Your task to perform on an android device: see sites visited before in the chrome app Image 0: 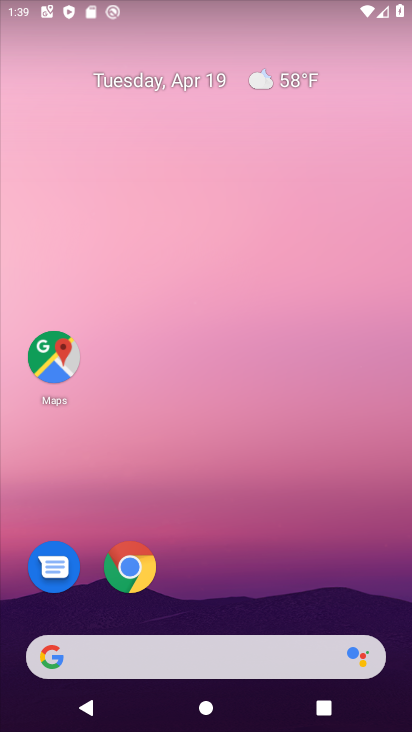
Step 0: click (118, 569)
Your task to perform on an android device: see sites visited before in the chrome app Image 1: 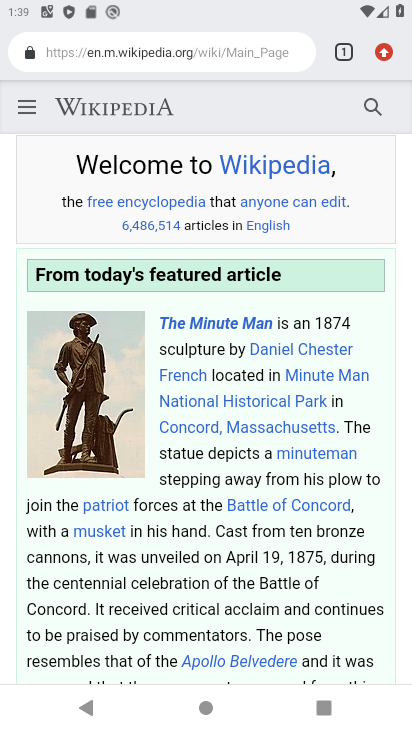
Step 1: click (385, 52)
Your task to perform on an android device: see sites visited before in the chrome app Image 2: 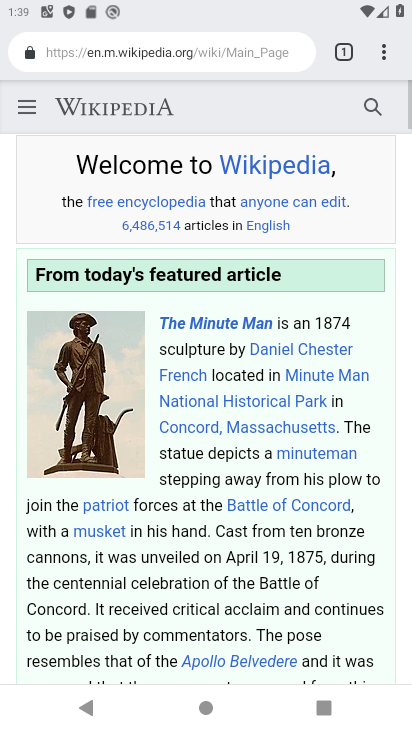
Step 2: click (382, 50)
Your task to perform on an android device: see sites visited before in the chrome app Image 3: 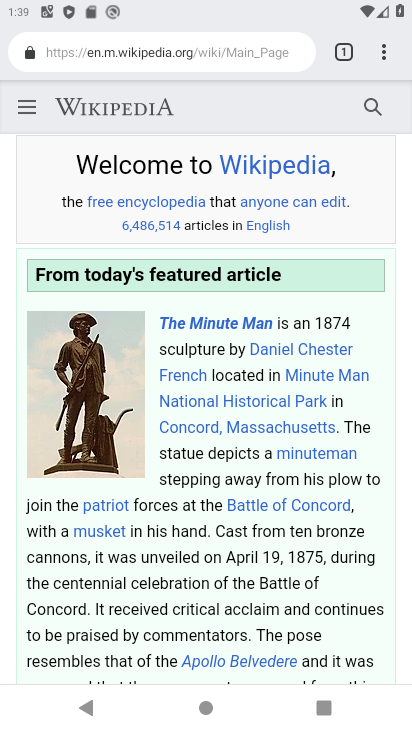
Step 3: click (389, 47)
Your task to perform on an android device: see sites visited before in the chrome app Image 4: 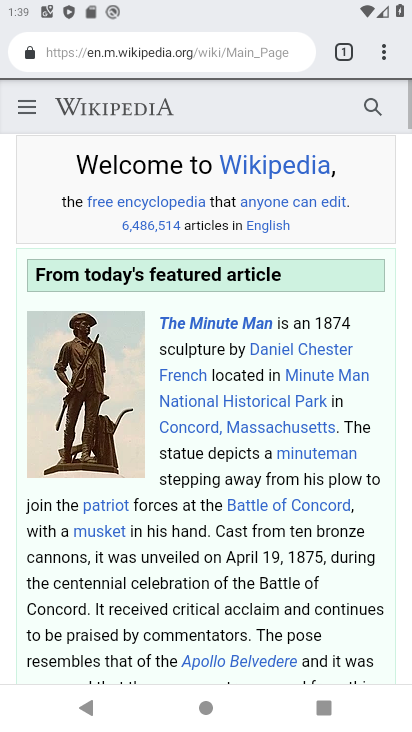
Step 4: drag from (374, 79) to (263, 303)
Your task to perform on an android device: see sites visited before in the chrome app Image 5: 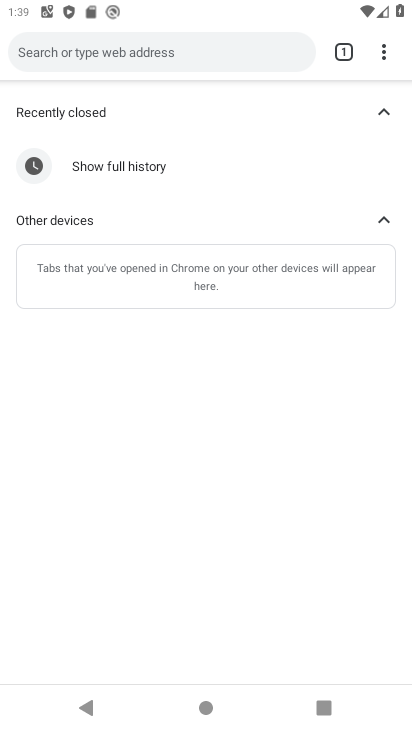
Step 5: click (102, 162)
Your task to perform on an android device: see sites visited before in the chrome app Image 6: 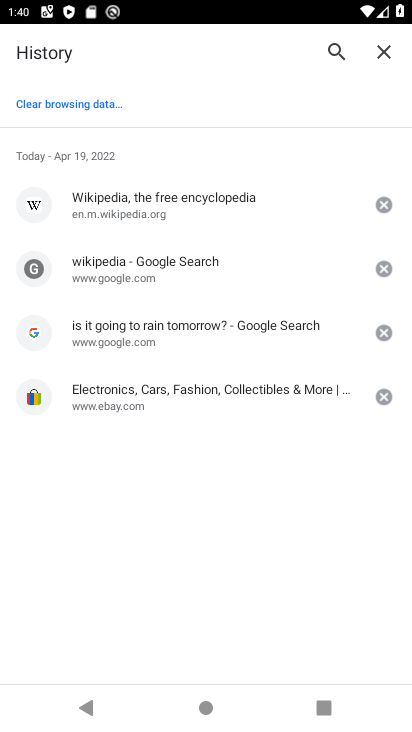
Step 6: click (114, 408)
Your task to perform on an android device: see sites visited before in the chrome app Image 7: 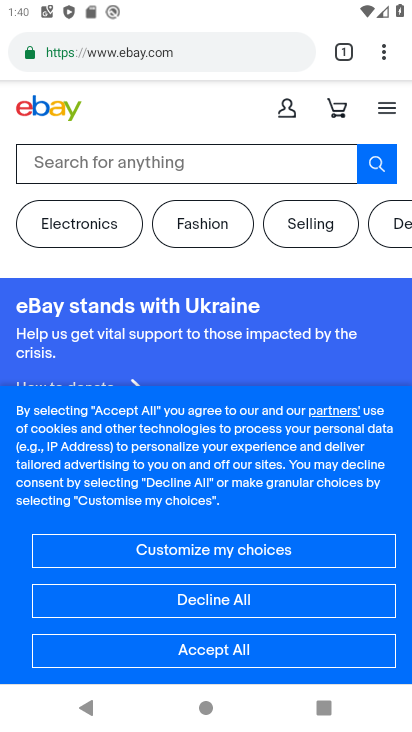
Step 7: press home button
Your task to perform on an android device: see sites visited before in the chrome app Image 8: 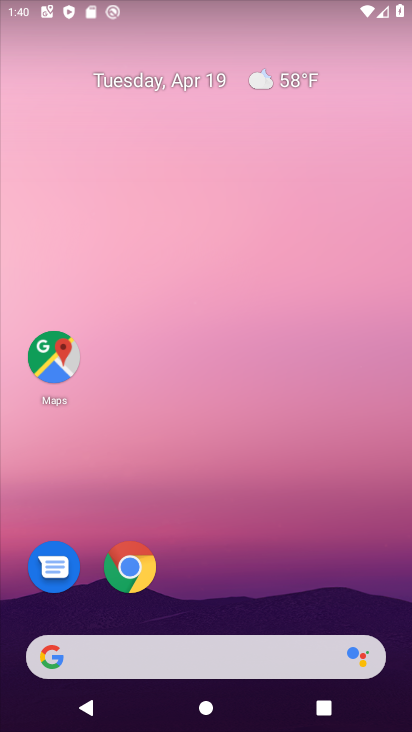
Step 8: click (133, 576)
Your task to perform on an android device: see sites visited before in the chrome app Image 9: 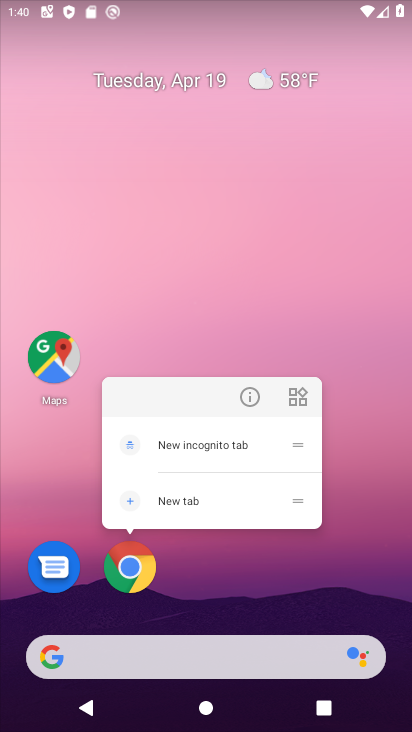
Step 9: click (123, 577)
Your task to perform on an android device: see sites visited before in the chrome app Image 10: 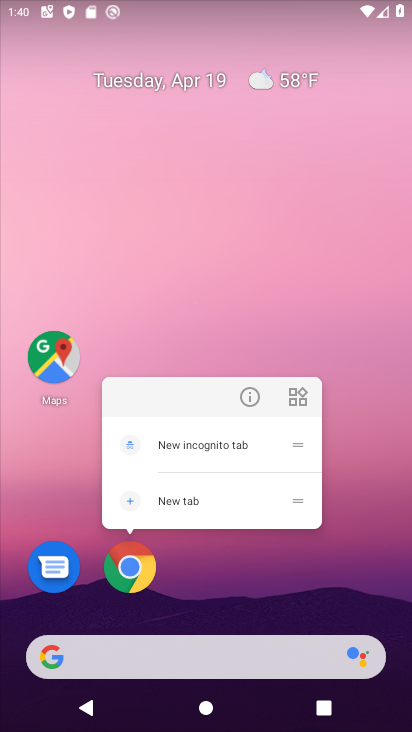
Step 10: click (140, 562)
Your task to perform on an android device: see sites visited before in the chrome app Image 11: 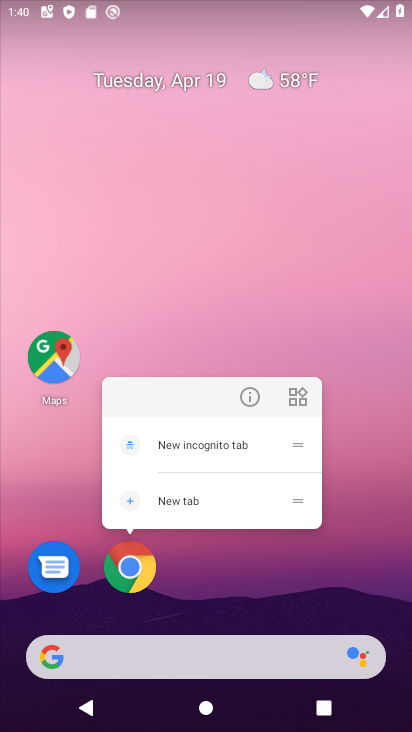
Step 11: click (130, 582)
Your task to perform on an android device: see sites visited before in the chrome app Image 12: 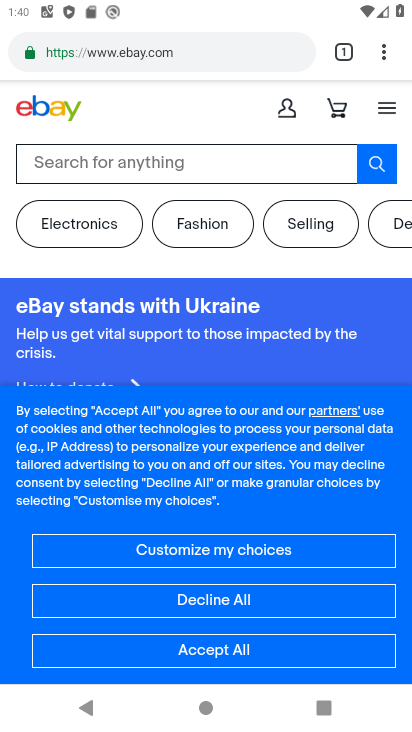
Step 12: click (389, 49)
Your task to perform on an android device: see sites visited before in the chrome app Image 13: 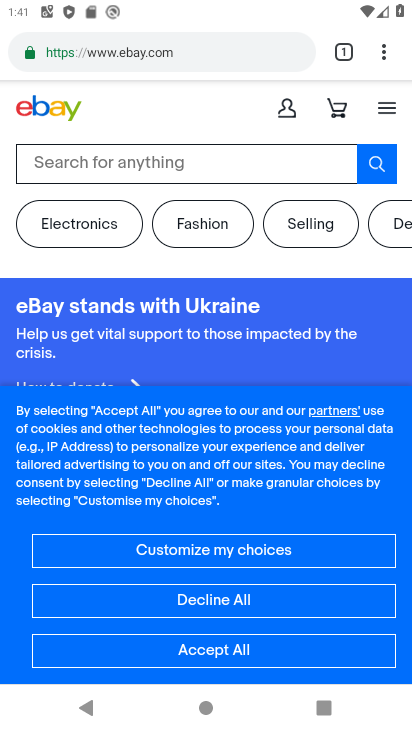
Step 13: drag from (388, 56) to (183, 301)
Your task to perform on an android device: see sites visited before in the chrome app Image 14: 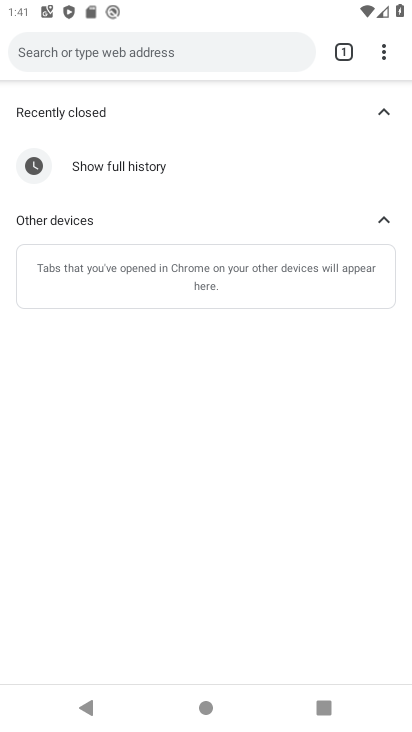
Step 14: click (119, 175)
Your task to perform on an android device: see sites visited before in the chrome app Image 15: 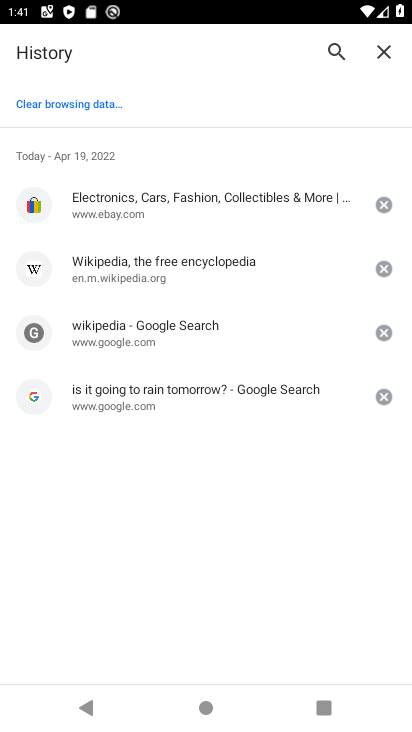
Step 15: click (213, 197)
Your task to perform on an android device: see sites visited before in the chrome app Image 16: 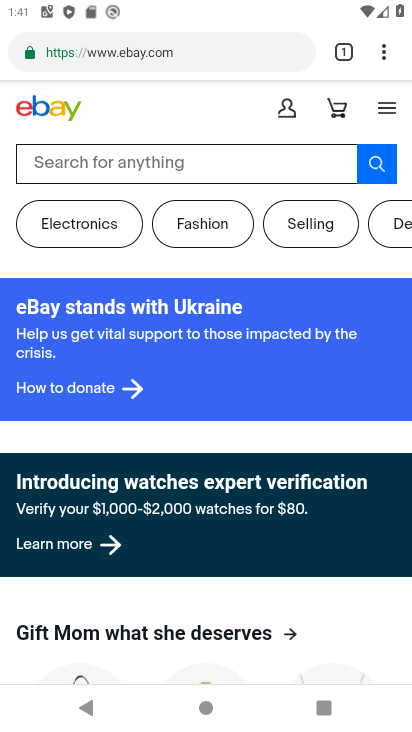
Step 16: task complete